Your task to perform on an android device: turn on sleep mode Image 0: 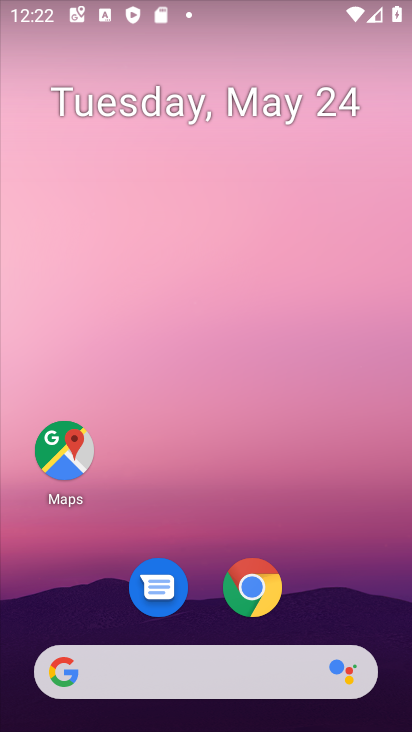
Step 0: drag from (215, 714) to (238, 166)
Your task to perform on an android device: turn on sleep mode Image 1: 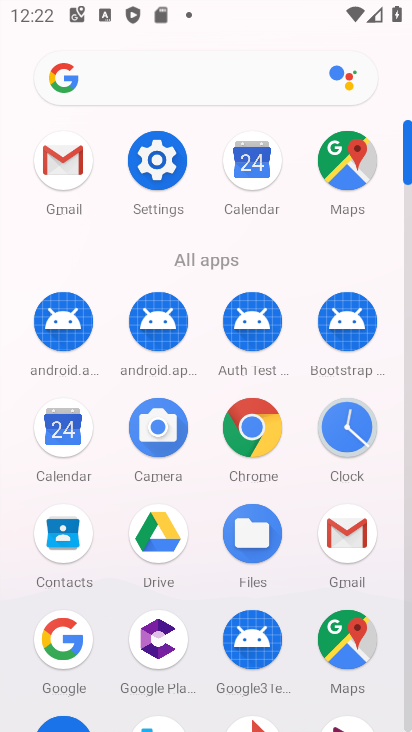
Step 1: click (154, 163)
Your task to perform on an android device: turn on sleep mode Image 2: 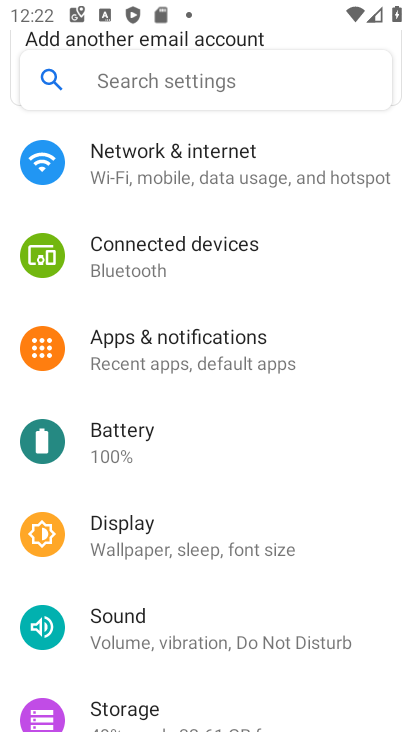
Step 2: click (224, 549)
Your task to perform on an android device: turn on sleep mode Image 3: 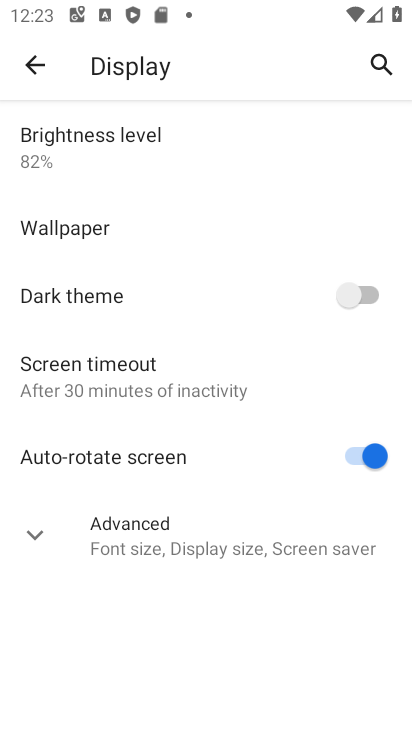
Step 3: task complete